Your task to perform on an android device: Go to display settings Image 0: 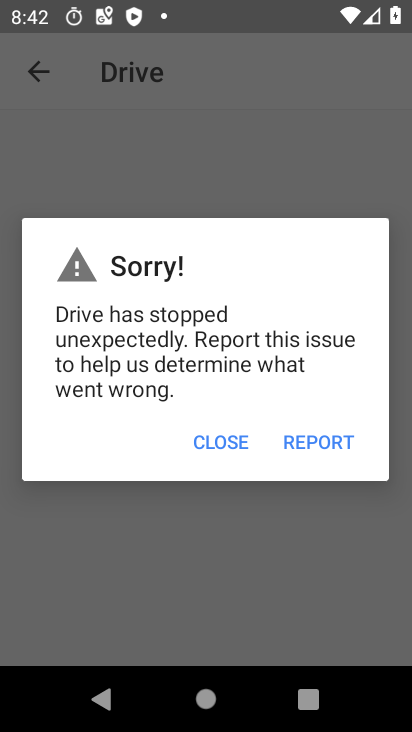
Step 0: click (234, 443)
Your task to perform on an android device: Go to display settings Image 1: 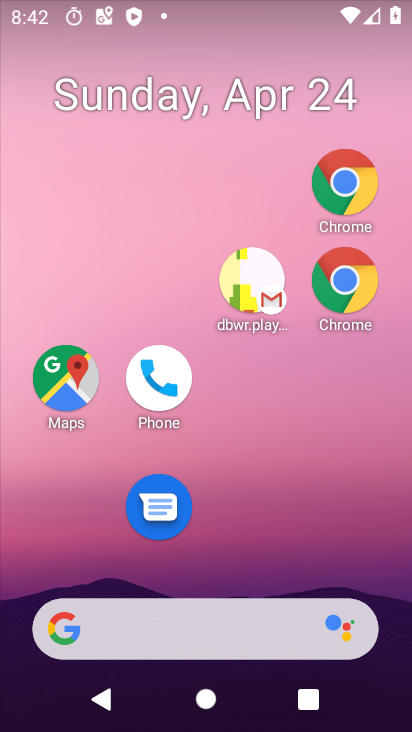
Step 1: drag from (221, 613) to (146, 5)
Your task to perform on an android device: Go to display settings Image 2: 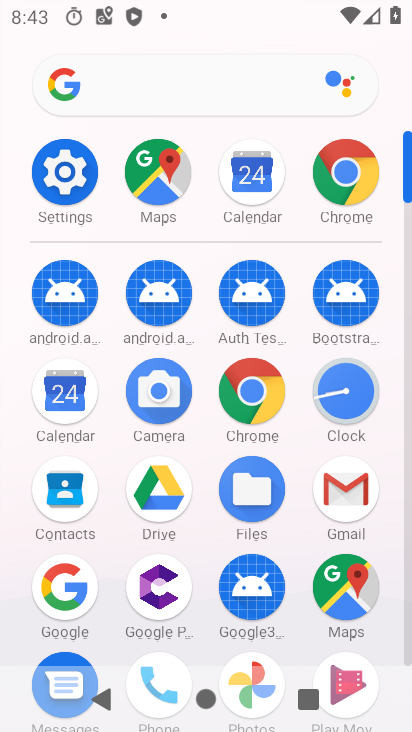
Step 2: click (78, 181)
Your task to perform on an android device: Go to display settings Image 3: 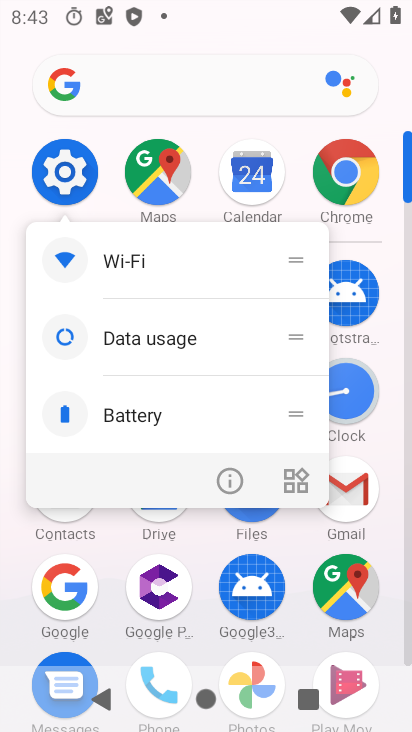
Step 3: click (70, 172)
Your task to perform on an android device: Go to display settings Image 4: 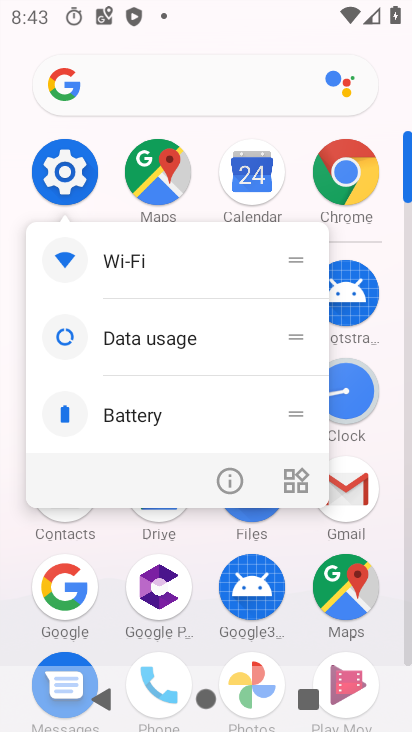
Step 4: click (72, 174)
Your task to perform on an android device: Go to display settings Image 5: 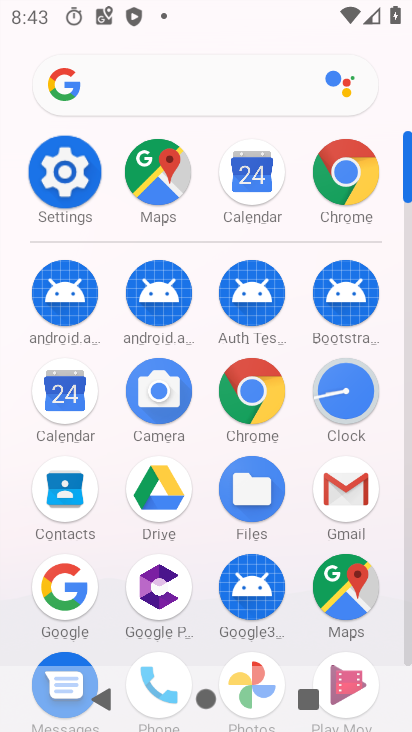
Step 5: click (78, 177)
Your task to perform on an android device: Go to display settings Image 6: 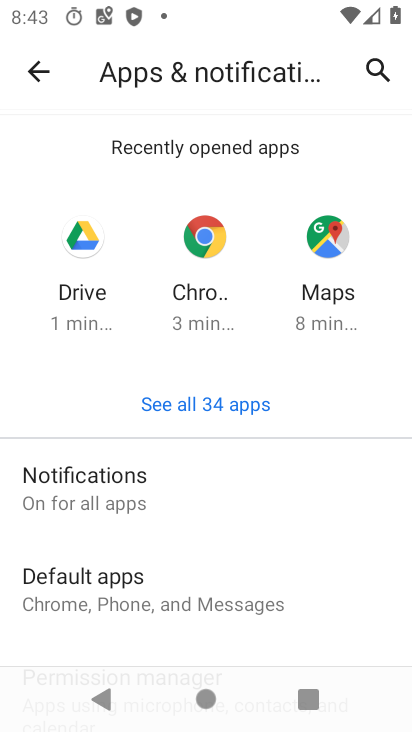
Step 6: click (26, 76)
Your task to perform on an android device: Go to display settings Image 7: 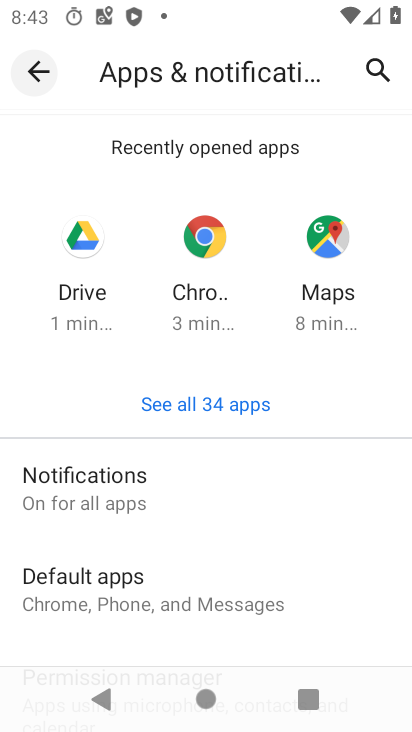
Step 7: click (27, 77)
Your task to perform on an android device: Go to display settings Image 8: 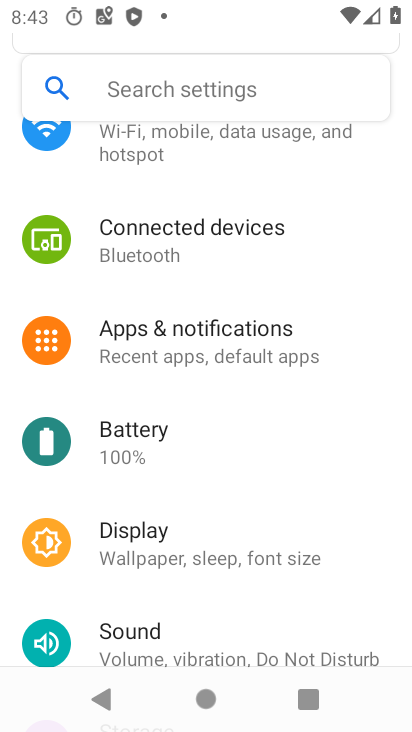
Step 8: click (131, 549)
Your task to perform on an android device: Go to display settings Image 9: 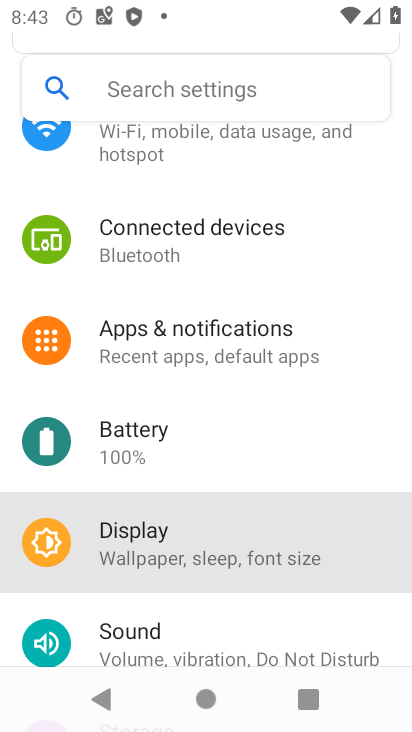
Step 9: click (131, 550)
Your task to perform on an android device: Go to display settings Image 10: 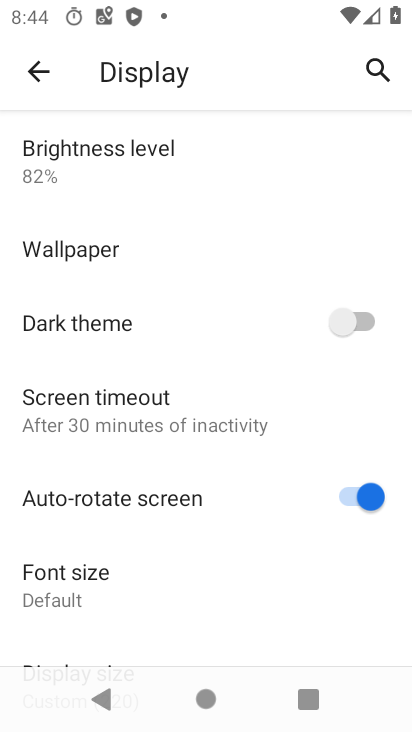
Step 10: task complete